Your task to perform on an android device: turn smart compose on in the gmail app Image 0: 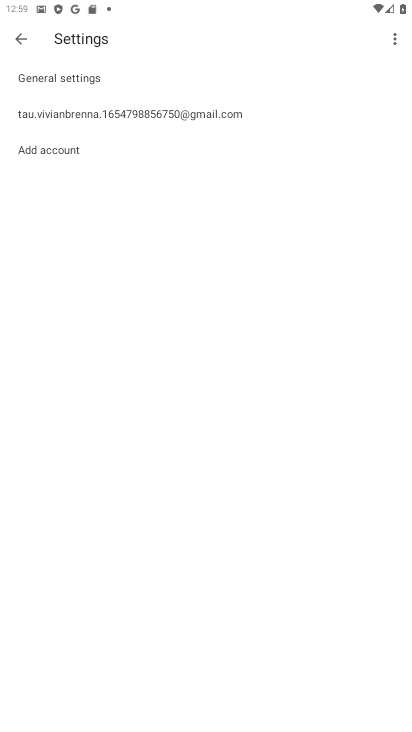
Step 0: click (136, 105)
Your task to perform on an android device: turn smart compose on in the gmail app Image 1: 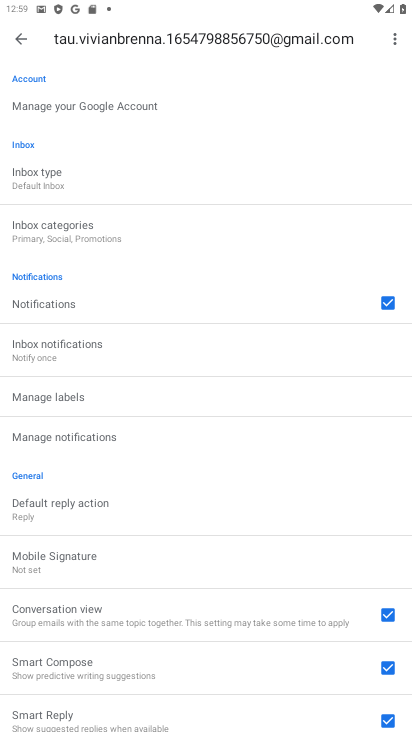
Step 1: task complete